Your task to perform on an android device: Show me popular games on the Play Store Image 0: 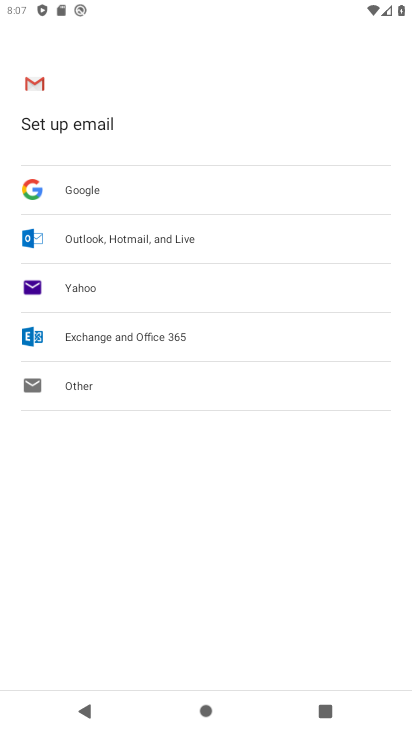
Step 0: press home button
Your task to perform on an android device: Show me popular games on the Play Store Image 1: 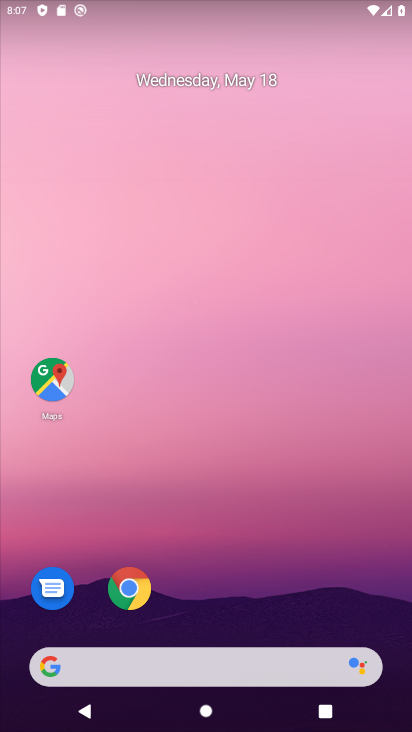
Step 1: drag from (371, 639) to (361, 0)
Your task to perform on an android device: Show me popular games on the Play Store Image 2: 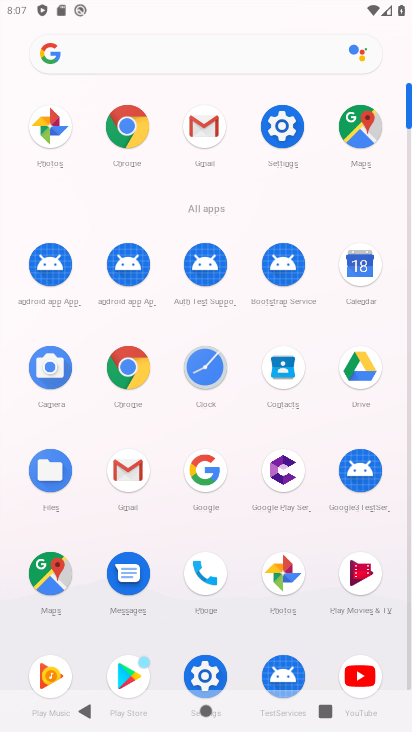
Step 2: click (122, 675)
Your task to perform on an android device: Show me popular games on the Play Store Image 3: 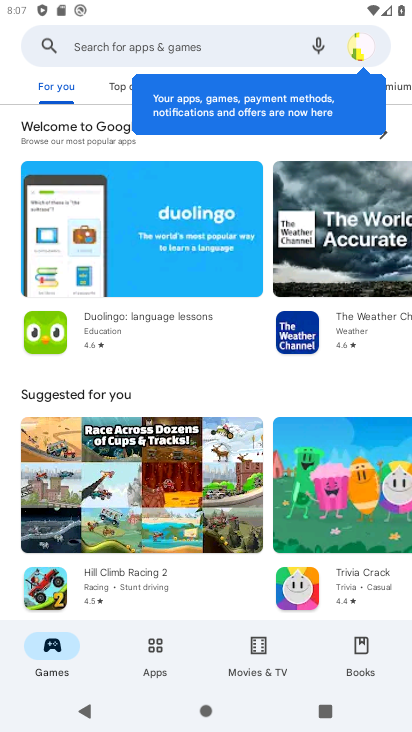
Step 3: drag from (194, 577) to (188, 187)
Your task to perform on an android device: Show me popular games on the Play Store Image 4: 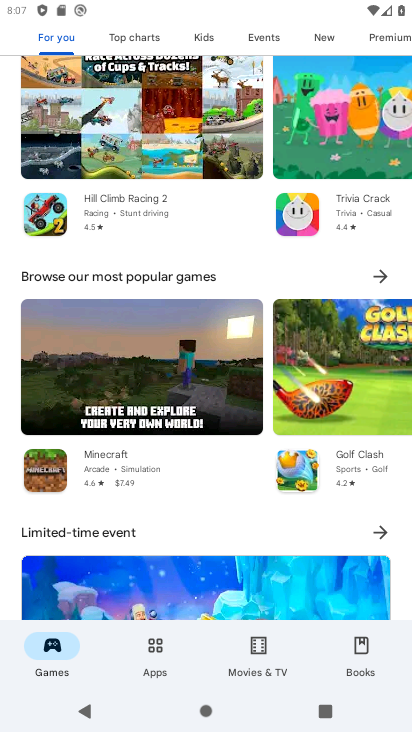
Step 4: drag from (208, 456) to (174, 157)
Your task to perform on an android device: Show me popular games on the Play Store Image 5: 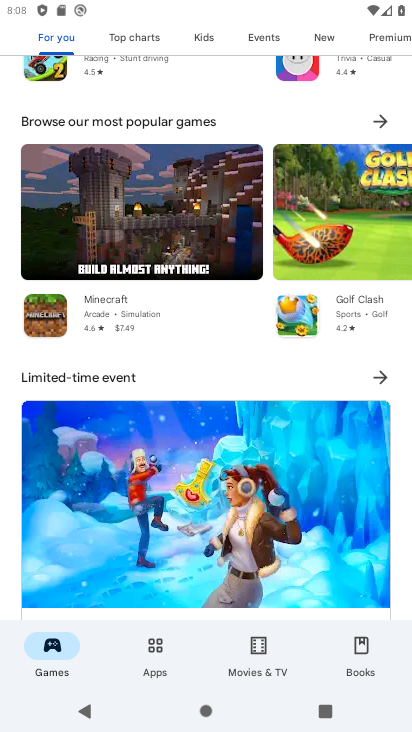
Step 5: click (166, 122)
Your task to perform on an android device: Show me popular games on the Play Store Image 6: 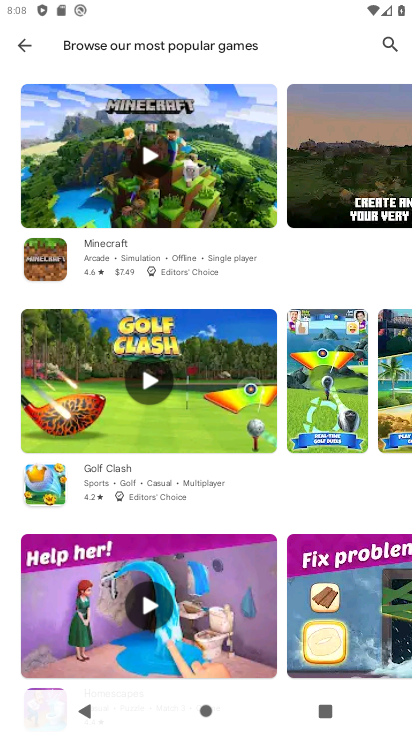
Step 6: task complete